Your task to perform on an android device: change notifications settings Image 0: 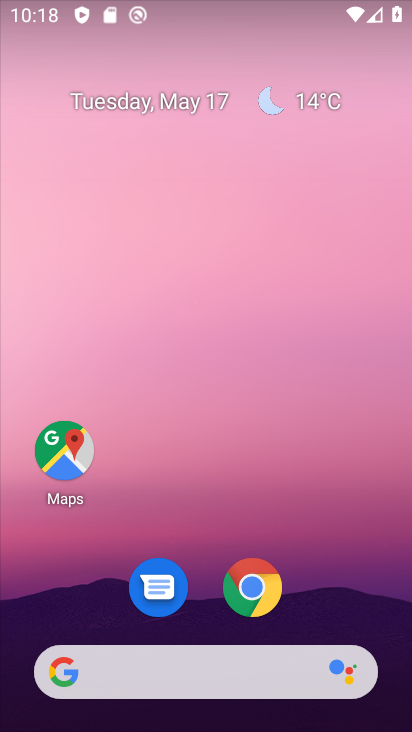
Step 0: drag from (312, 588) to (250, 378)
Your task to perform on an android device: change notifications settings Image 1: 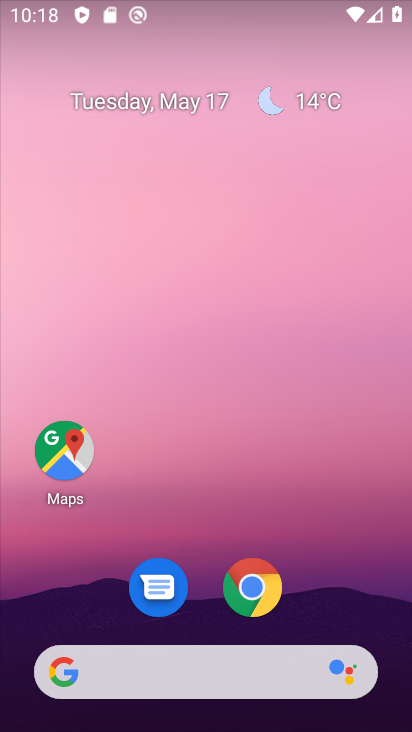
Step 1: drag from (365, 663) to (192, 108)
Your task to perform on an android device: change notifications settings Image 2: 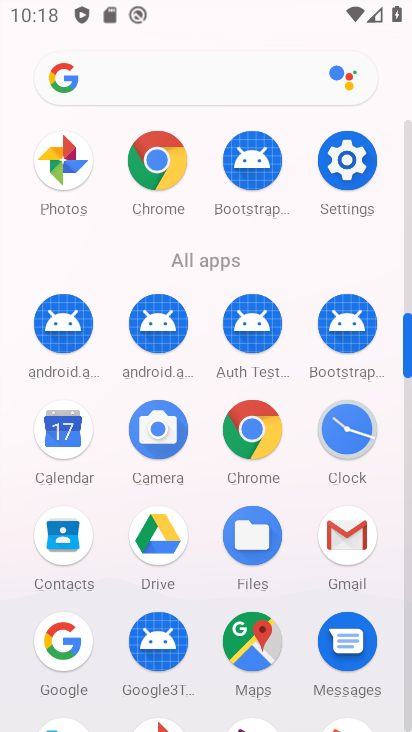
Step 2: drag from (338, 296) to (279, 2)
Your task to perform on an android device: change notifications settings Image 3: 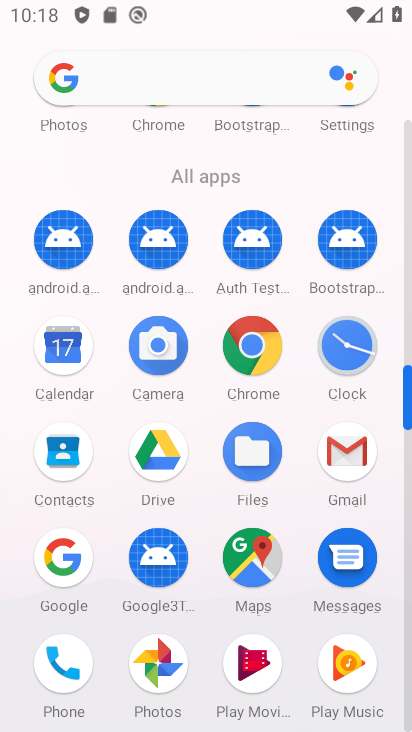
Step 3: drag from (311, 481) to (193, 83)
Your task to perform on an android device: change notifications settings Image 4: 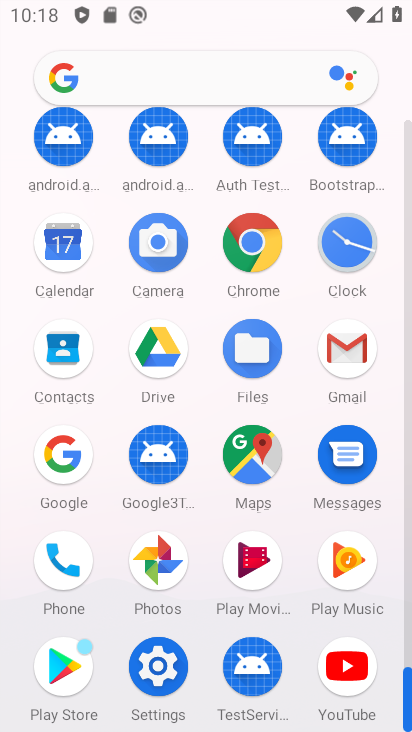
Step 4: click (172, 664)
Your task to perform on an android device: change notifications settings Image 5: 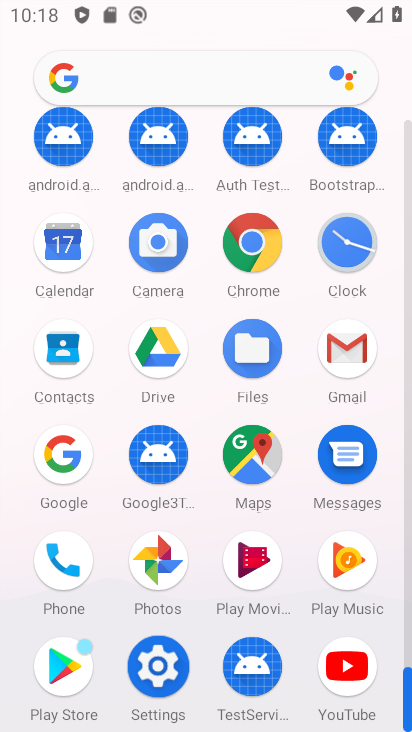
Step 5: click (169, 668)
Your task to perform on an android device: change notifications settings Image 6: 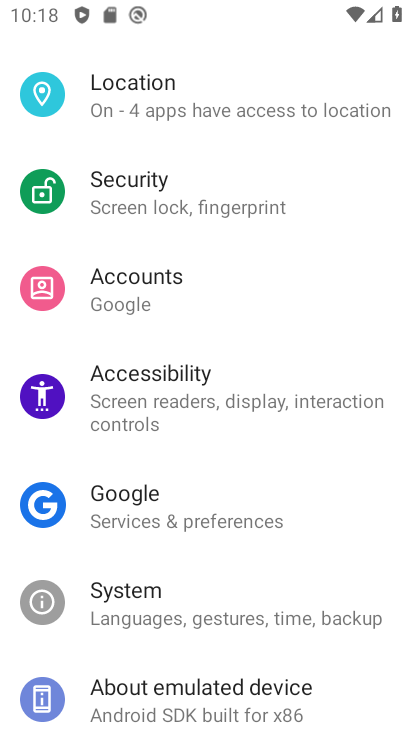
Step 6: click (210, 507)
Your task to perform on an android device: change notifications settings Image 7: 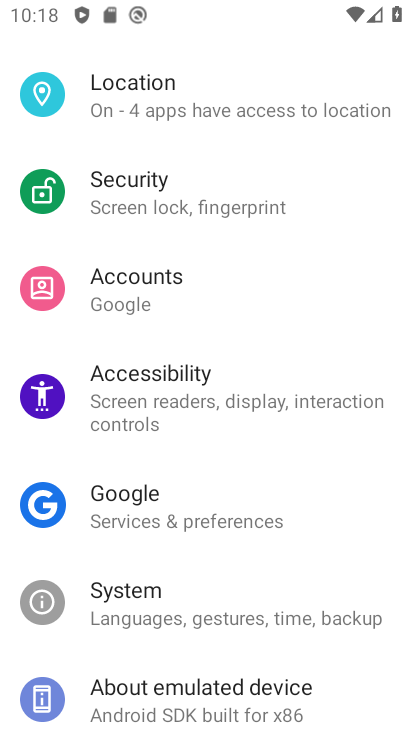
Step 7: drag from (184, 174) to (150, 597)
Your task to perform on an android device: change notifications settings Image 8: 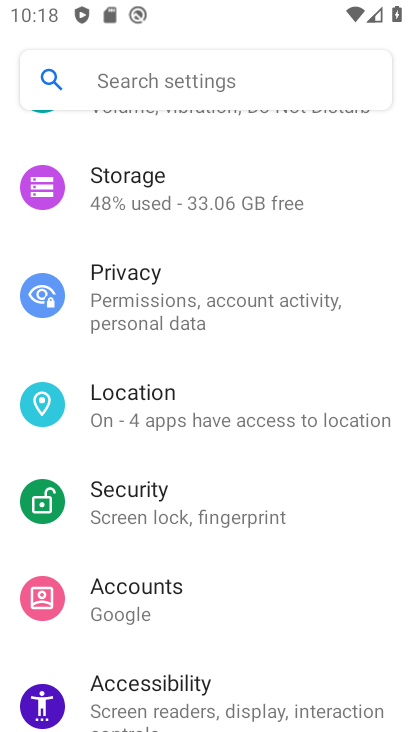
Step 8: drag from (151, 192) to (157, 620)
Your task to perform on an android device: change notifications settings Image 9: 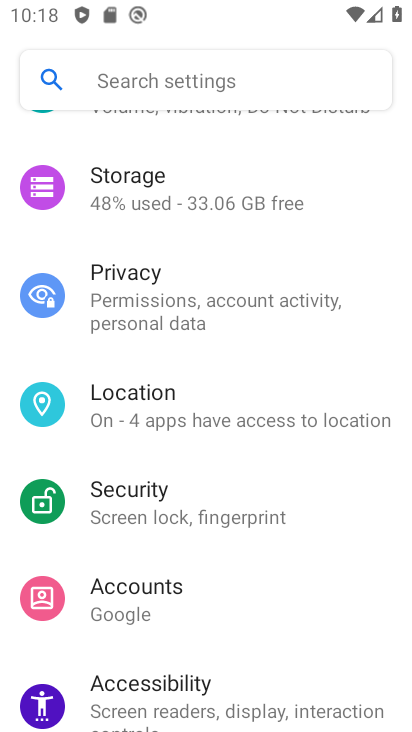
Step 9: drag from (140, 228) to (142, 639)
Your task to perform on an android device: change notifications settings Image 10: 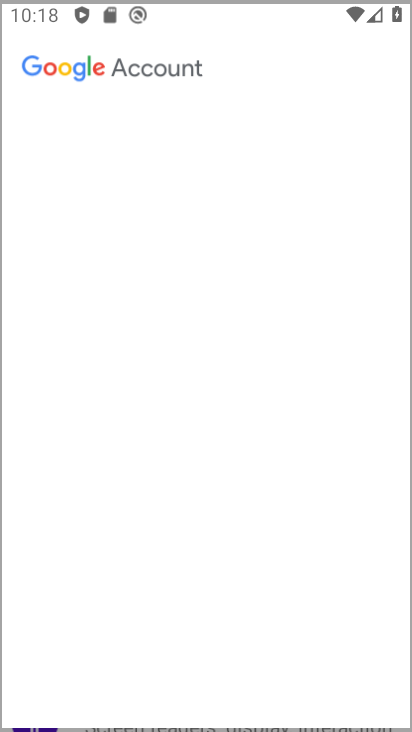
Step 10: drag from (134, 237) to (129, 699)
Your task to perform on an android device: change notifications settings Image 11: 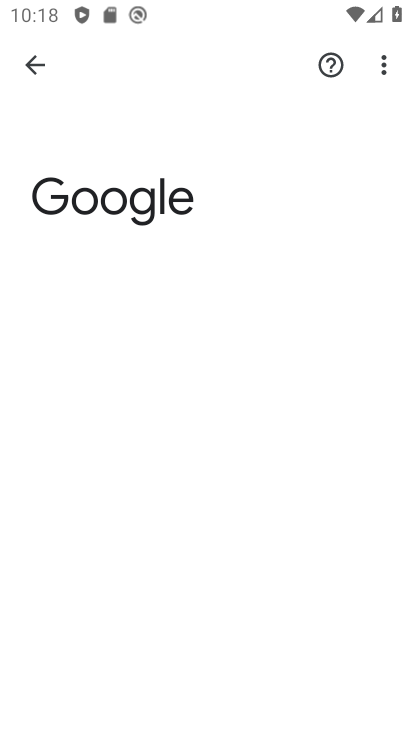
Step 11: drag from (150, 183) to (162, 675)
Your task to perform on an android device: change notifications settings Image 12: 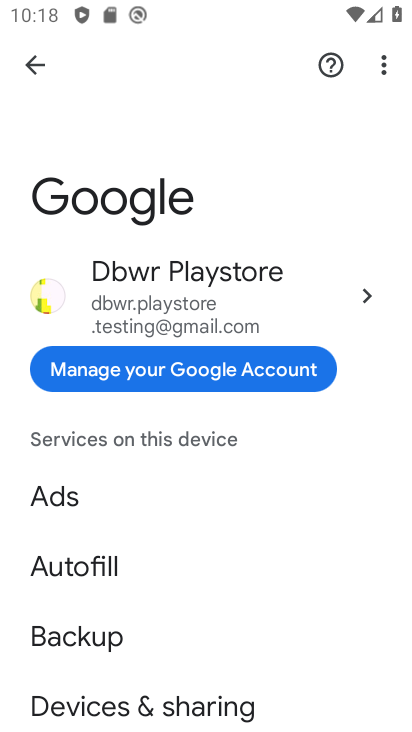
Step 12: click (37, 63)
Your task to perform on an android device: change notifications settings Image 13: 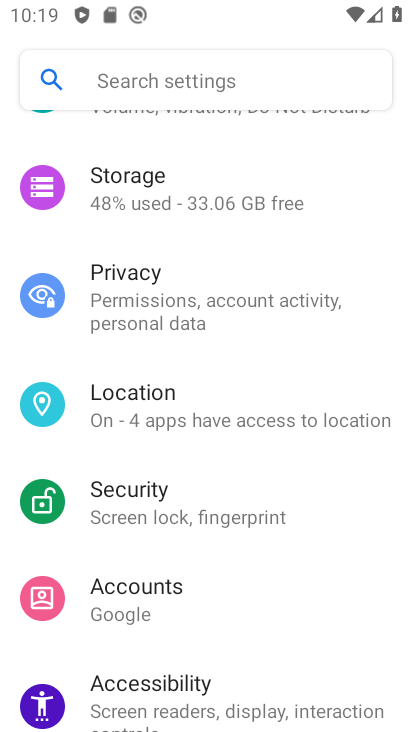
Step 13: drag from (158, 220) to (175, 550)
Your task to perform on an android device: change notifications settings Image 14: 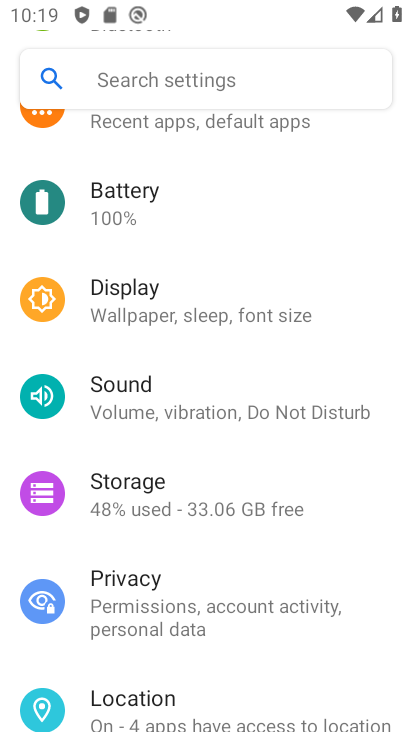
Step 14: drag from (154, 208) to (155, 499)
Your task to perform on an android device: change notifications settings Image 15: 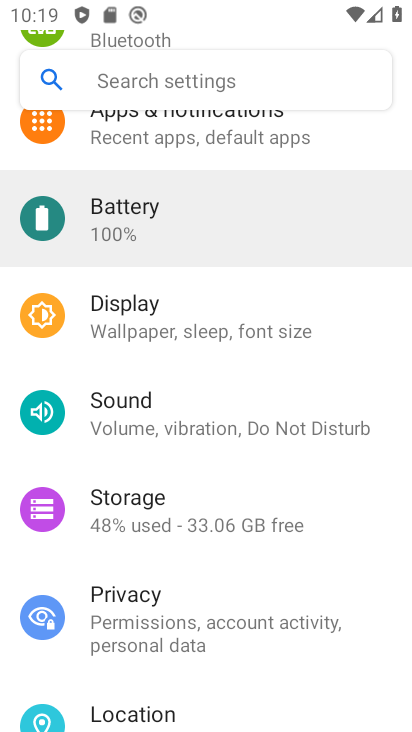
Step 15: drag from (125, 174) to (140, 468)
Your task to perform on an android device: change notifications settings Image 16: 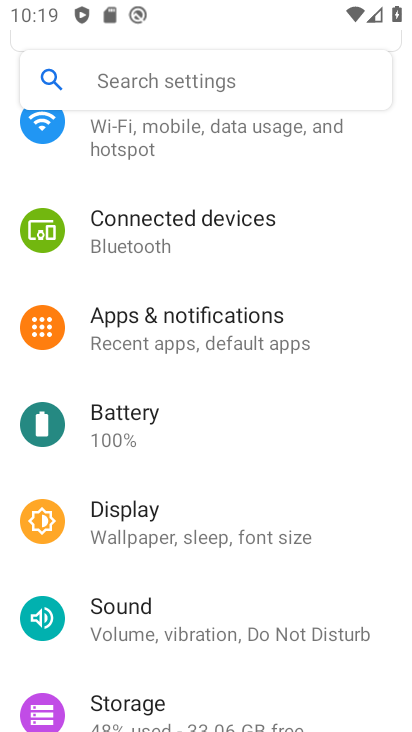
Step 16: click (157, 320)
Your task to perform on an android device: change notifications settings Image 17: 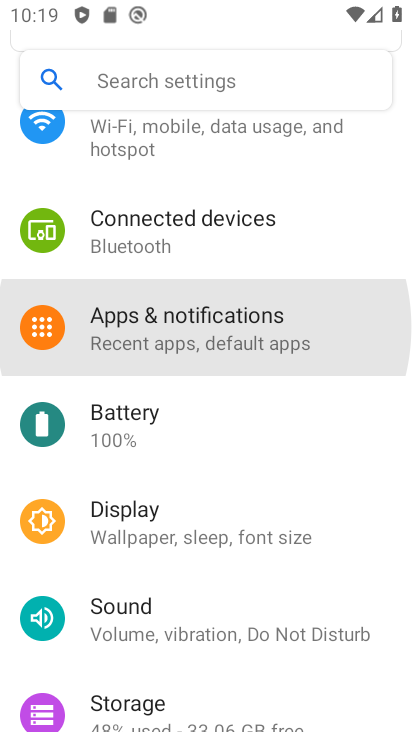
Step 17: click (158, 320)
Your task to perform on an android device: change notifications settings Image 18: 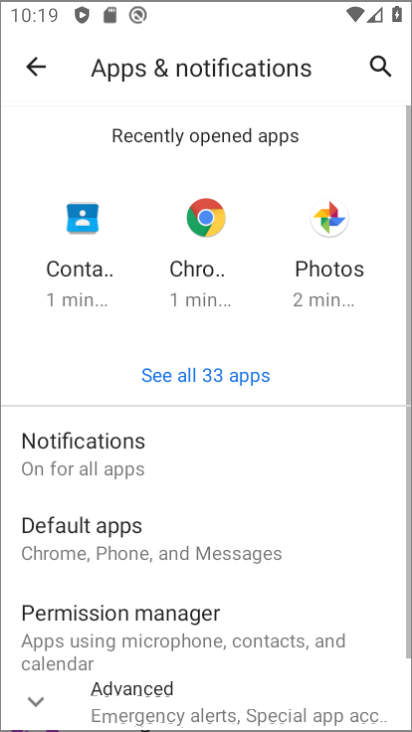
Step 18: click (158, 320)
Your task to perform on an android device: change notifications settings Image 19: 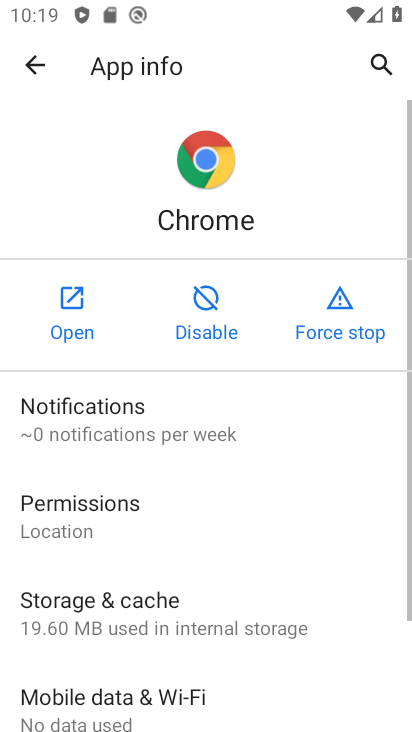
Step 19: click (77, 299)
Your task to perform on an android device: change notifications settings Image 20: 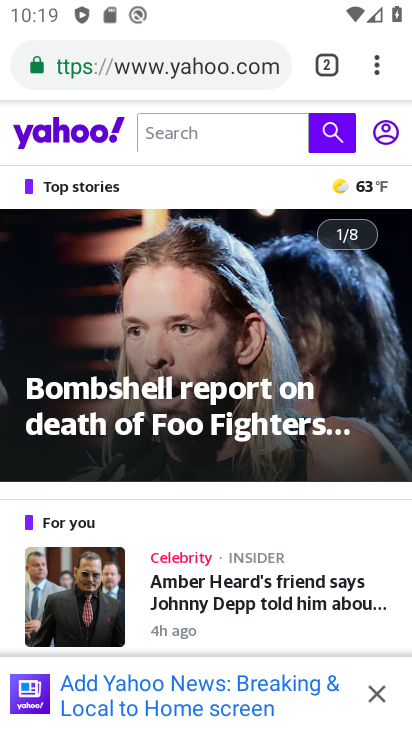
Step 20: press back button
Your task to perform on an android device: change notifications settings Image 21: 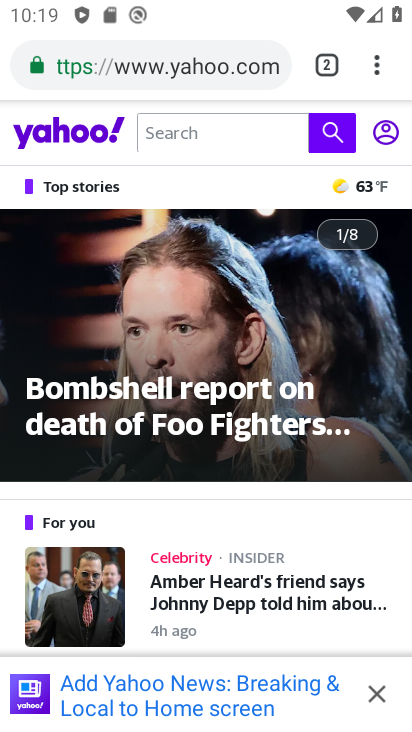
Step 21: press back button
Your task to perform on an android device: change notifications settings Image 22: 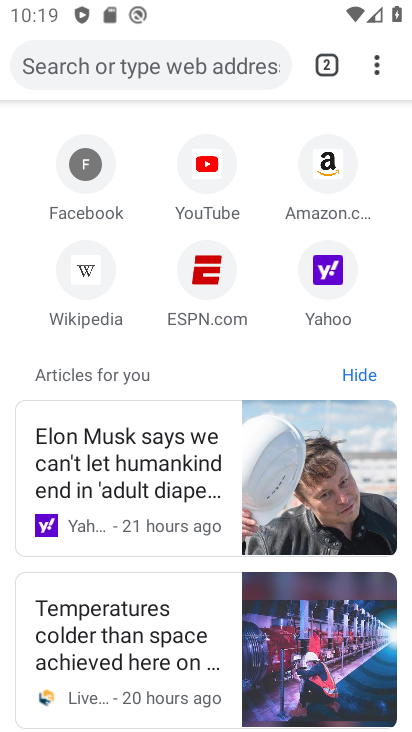
Step 22: press back button
Your task to perform on an android device: change notifications settings Image 23: 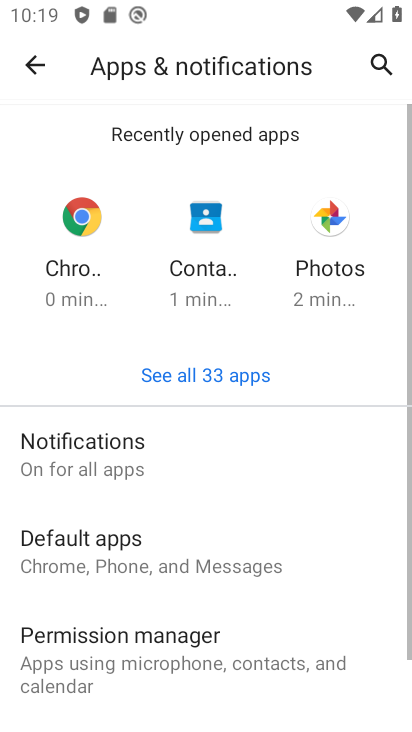
Step 23: press home button
Your task to perform on an android device: change notifications settings Image 24: 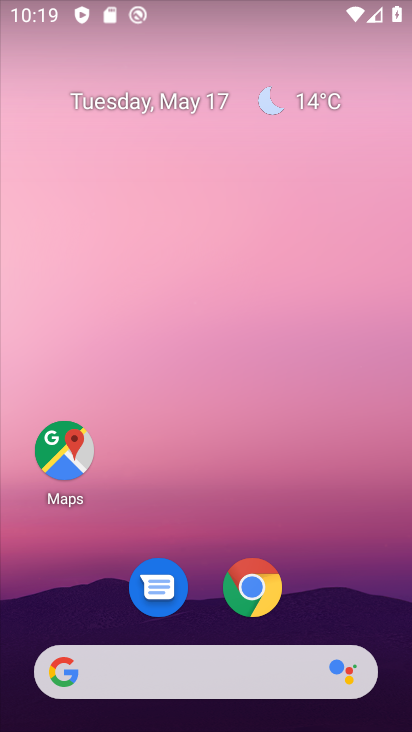
Step 24: drag from (227, 681) to (189, 44)
Your task to perform on an android device: change notifications settings Image 25: 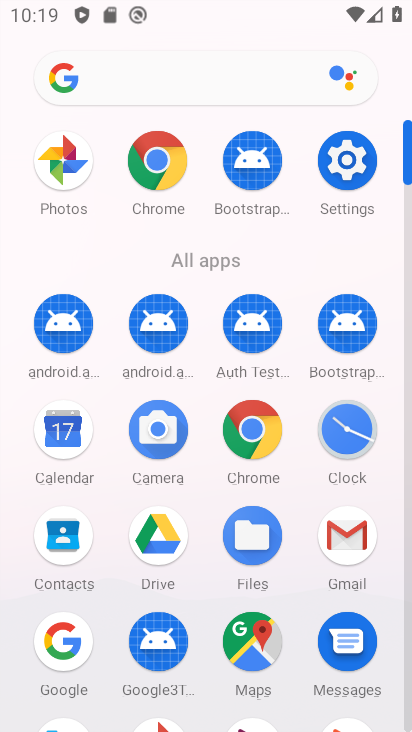
Step 25: click (360, 178)
Your task to perform on an android device: change notifications settings Image 26: 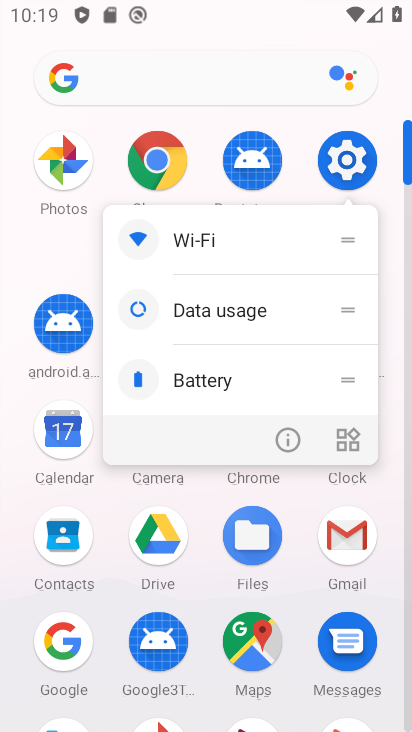
Step 26: click (346, 176)
Your task to perform on an android device: change notifications settings Image 27: 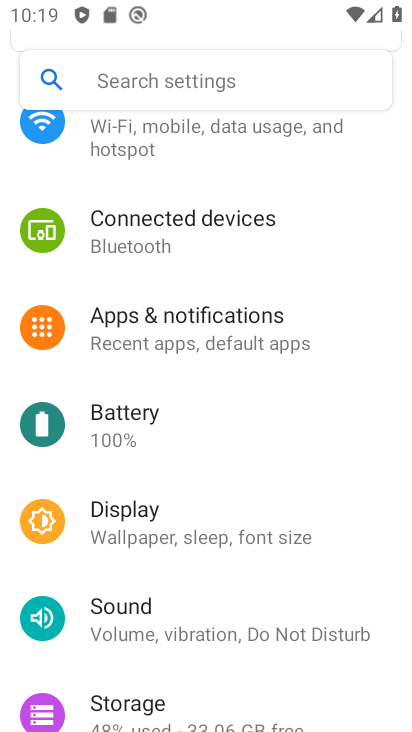
Step 27: click (157, 318)
Your task to perform on an android device: change notifications settings Image 28: 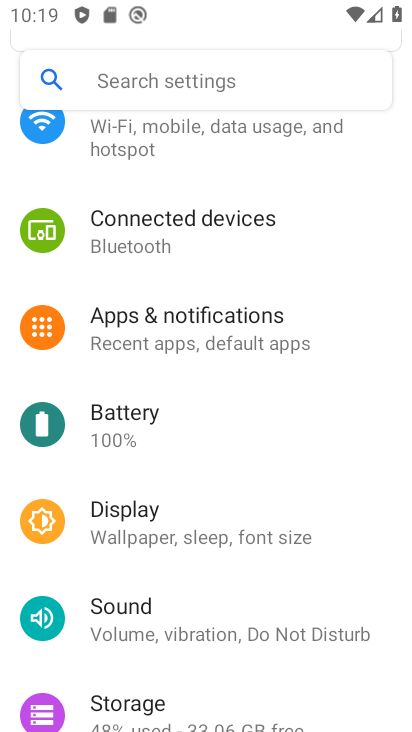
Step 28: click (152, 319)
Your task to perform on an android device: change notifications settings Image 29: 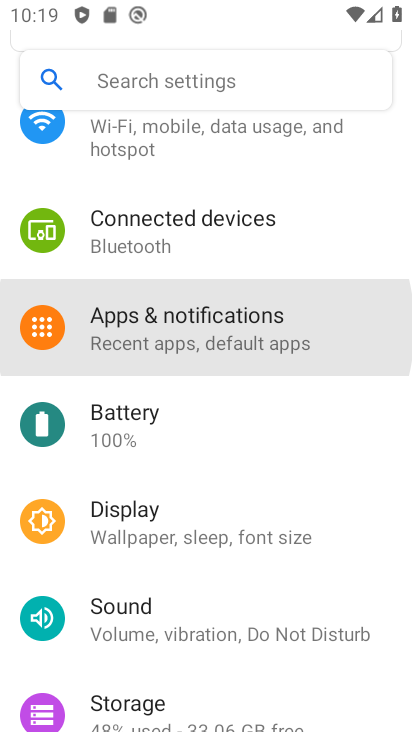
Step 29: click (153, 313)
Your task to perform on an android device: change notifications settings Image 30: 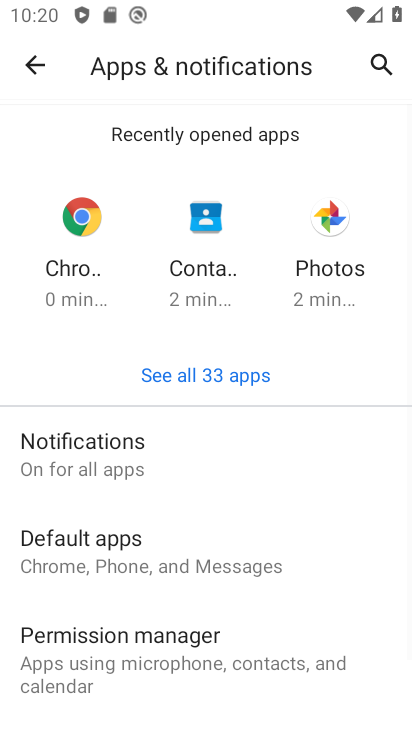
Step 30: click (95, 453)
Your task to perform on an android device: change notifications settings Image 31: 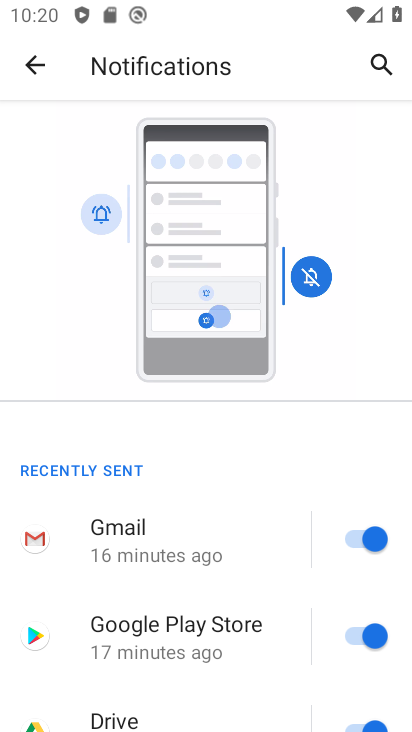
Step 31: drag from (214, 519) to (232, 167)
Your task to perform on an android device: change notifications settings Image 32: 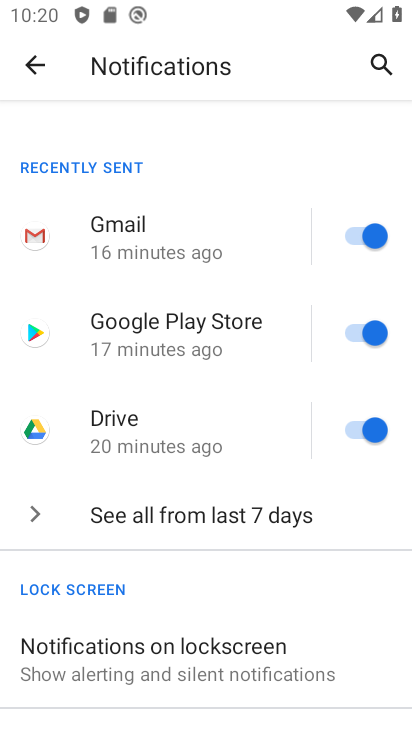
Step 32: click (149, 241)
Your task to perform on an android device: change notifications settings Image 33: 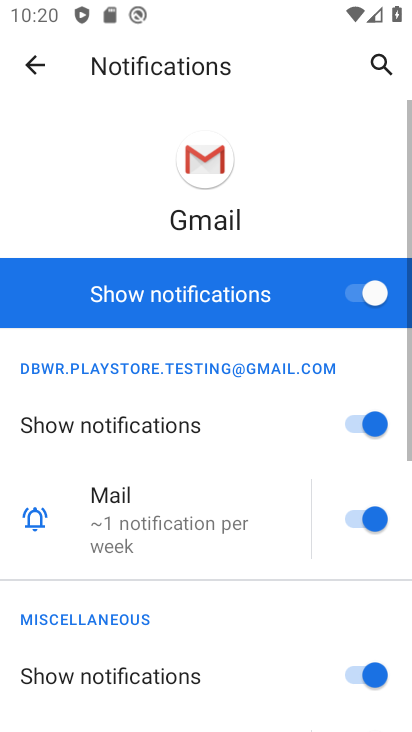
Step 33: click (371, 291)
Your task to perform on an android device: change notifications settings Image 34: 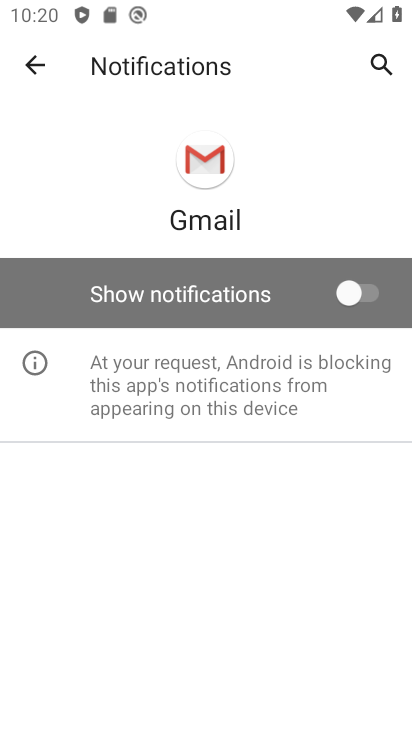
Step 34: click (40, 69)
Your task to perform on an android device: change notifications settings Image 35: 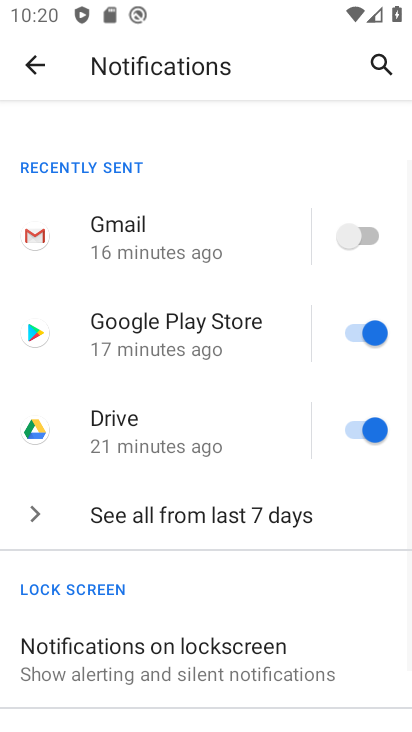
Step 35: click (158, 318)
Your task to perform on an android device: change notifications settings Image 36: 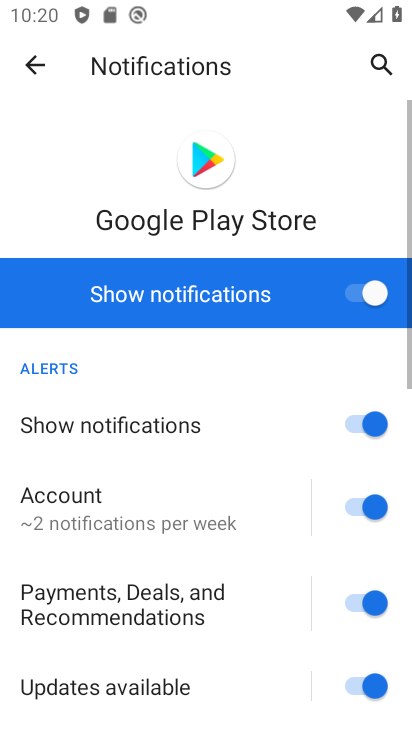
Step 36: click (374, 276)
Your task to perform on an android device: change notifications settings Image 37: 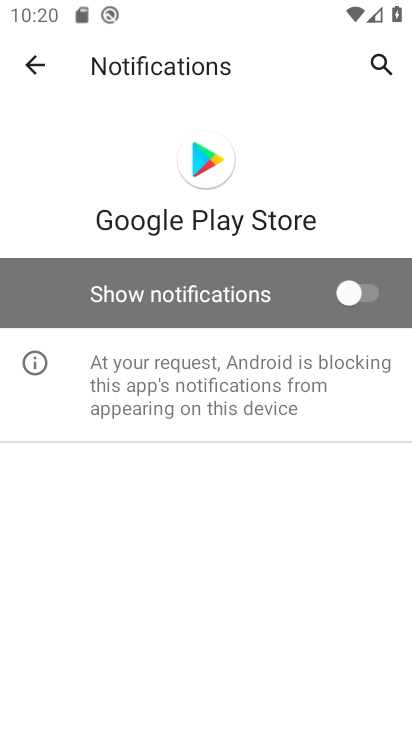
Step 37: click (37, 69)
Your task to perform on an android device: change notifications settings Image 38: 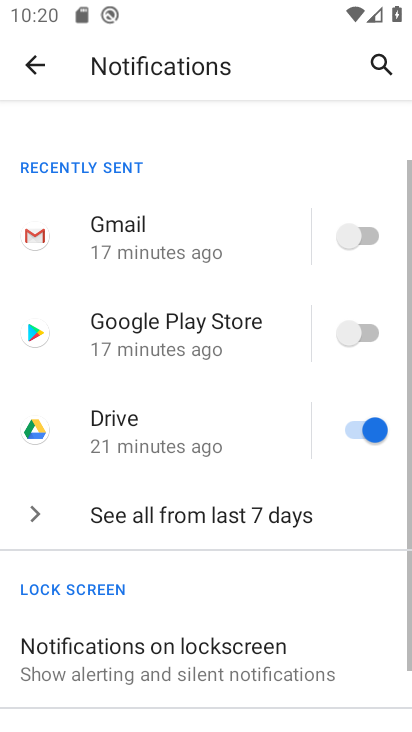
Step 38: click (371, 439)
Your task to perform on an android device: change notifications settings Image 39: 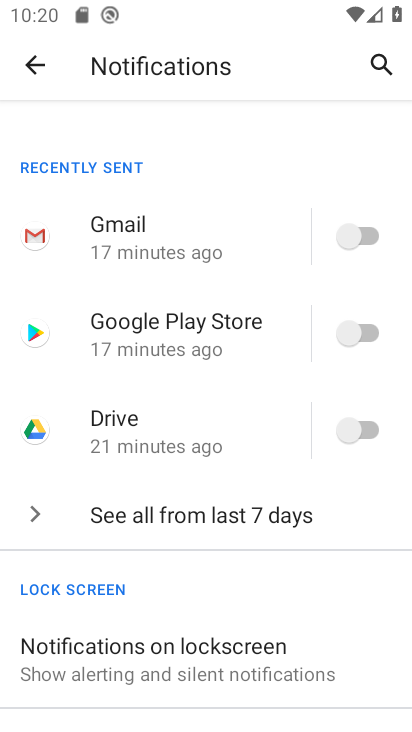
Step 39: task complete